Your task to perform on an android device: What is the news today? Image 0: 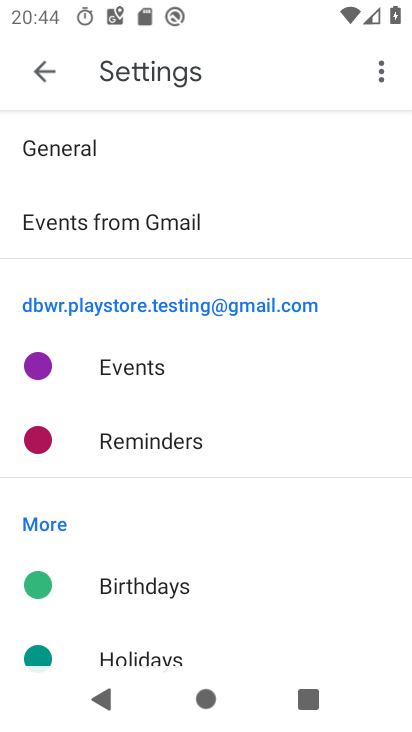
Step 0: press home button
Your task to perform on an android device: What is the news today? Image 1: 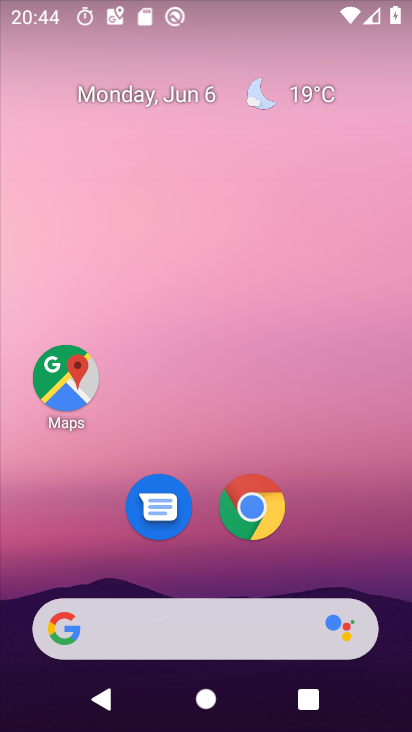
Step 1: click (282, 501)
Your task to perform on an android device: What is the news today? Image 2: 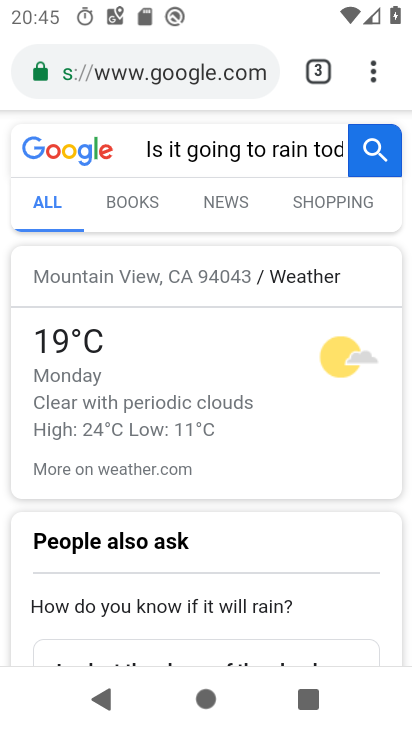
Step 2: click (171, 75)
Your task to perform on an android device: What is the news today? Image 3: 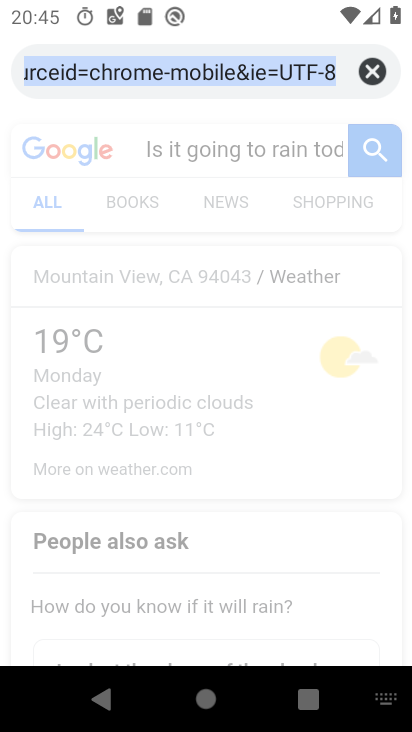
Step 3: type "What is the news today?"
Your task to perform on an android device: What is the news today? Image 4: 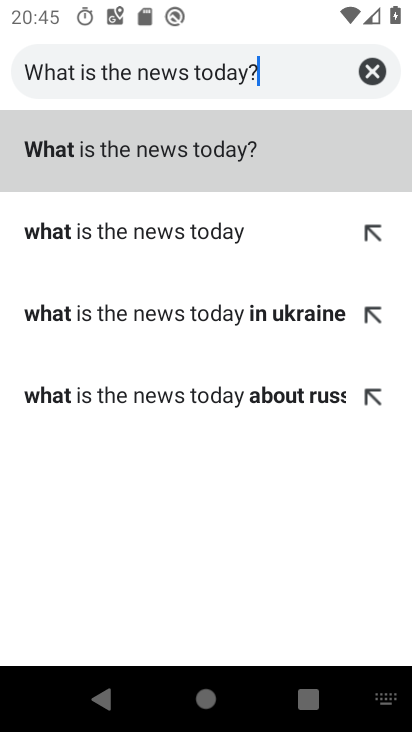
Step 4: type ""
Your task to perform on an android device: What is the news today? Image 5: 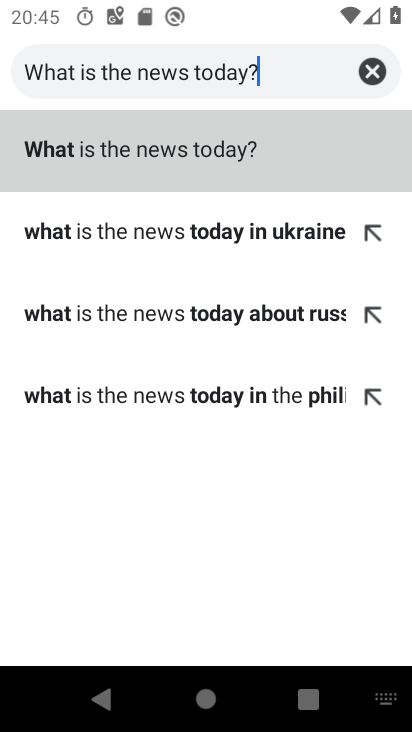
Step 5: click (184, 132)
Your task to perform on an android device: What is the news today? Image 6: 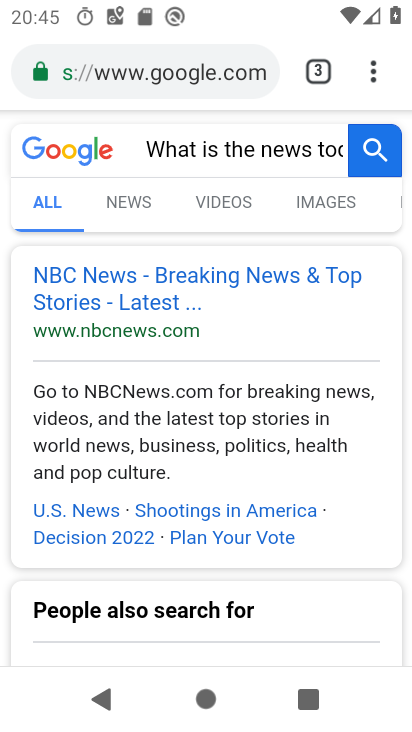
Step 6: task complete